Your task to perform on an android device: Set the phone to "Do not disturb". Image 0: 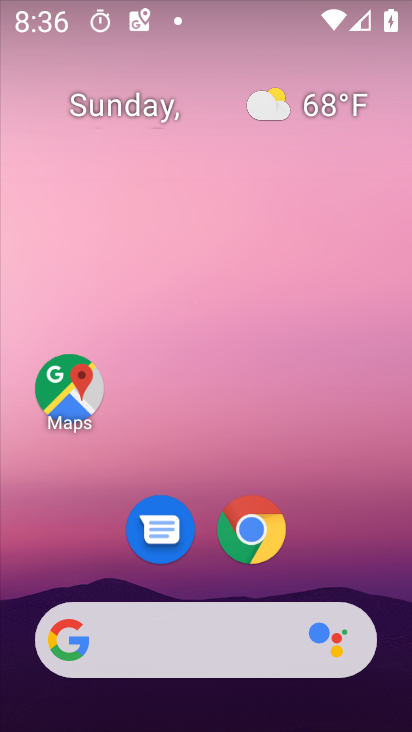
Step 0: press home button
Your task to perform on an android device: Set the phone to "Do not disturb". Image 1: 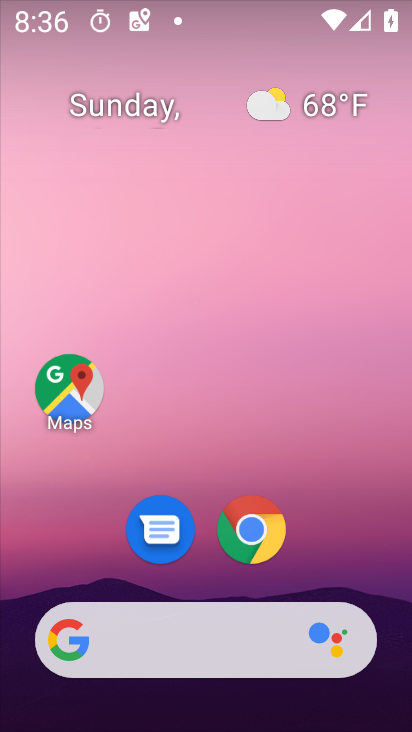
Step 1: drag from (217, 10) to (201, 584)
Your task to perform on an android device: Set the phone to "Do not disturb". Image 2: 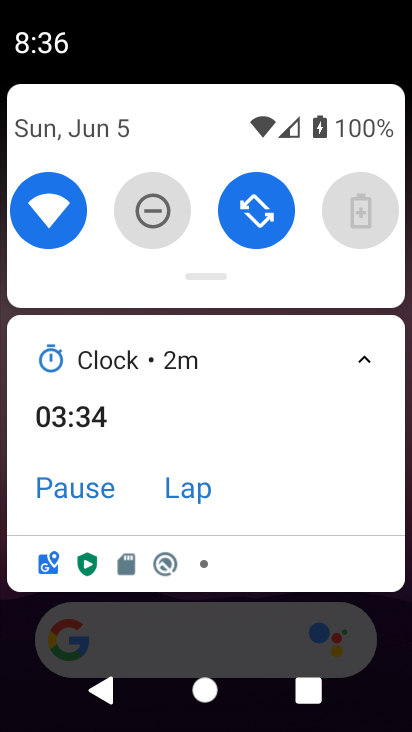
Step 2: click (158, 219)
Your task to perform on an android device: Set the phone to "Do not disturb". Image 3: 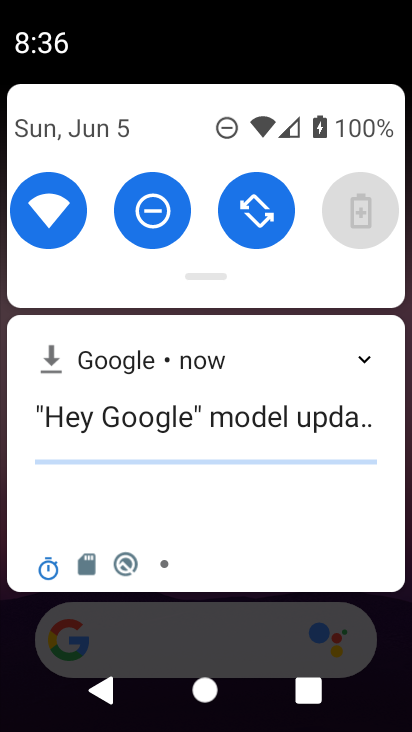
Step 3: task complete